Your task to perform on an android device: Go to eBay Image 0: 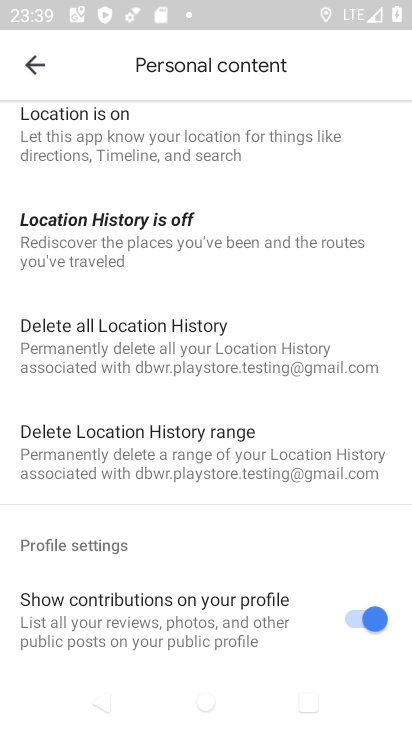
Step 0: press home button
Your task to perform on an android device: Go to eBay Image 1: 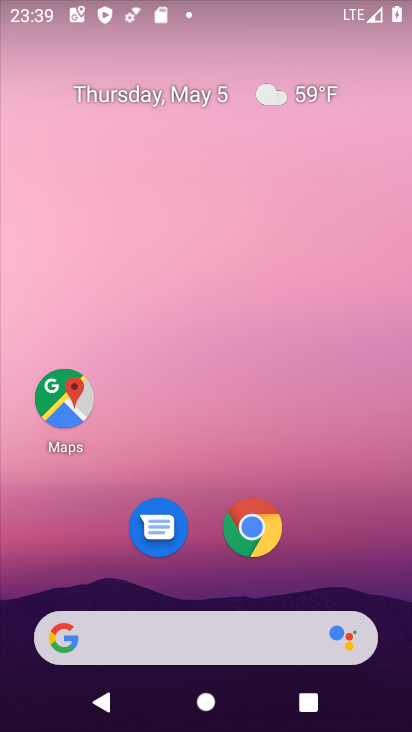
Step 1: click (248, 533)
Your task to perform on an android device: Go to eBay Image 2: 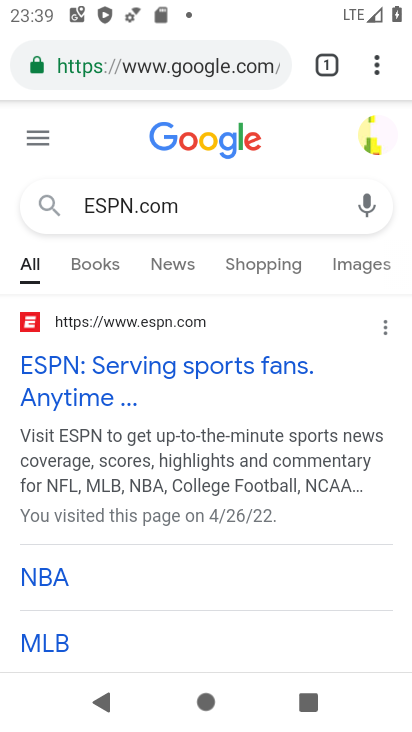
Step 2: click (199, 69)
Your task to perform on an android device: Go to eBay Image 3: 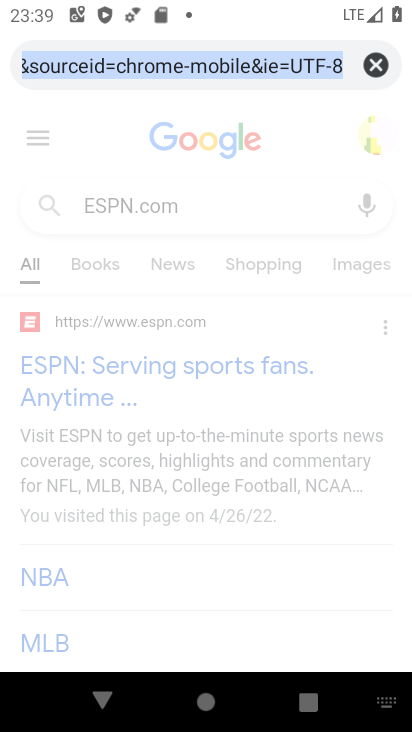
Step 3: type "eBay"
Your task to perform on an android device: Go to eBay Image 4: 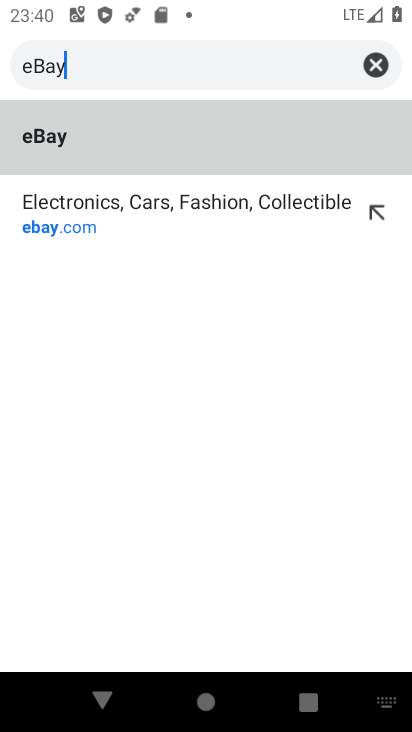
Step 4: click (224, 144)
Your task to perform on an android device: Go to eBay Image 5: 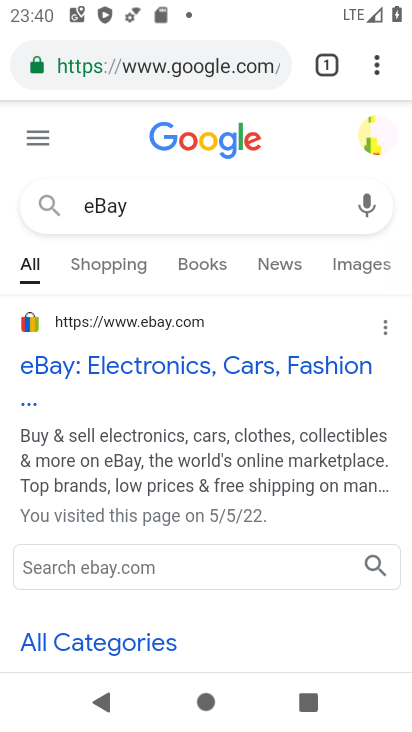
Step 5: task complete